Your task to perform on an android device: What's the weather today? Image 0: 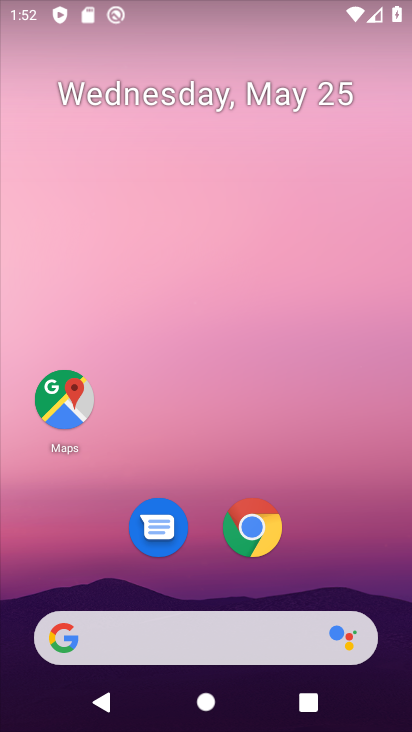
Step 0: click (195, 294)
Your task to perform on an android device: What's the weather today? Image 1: 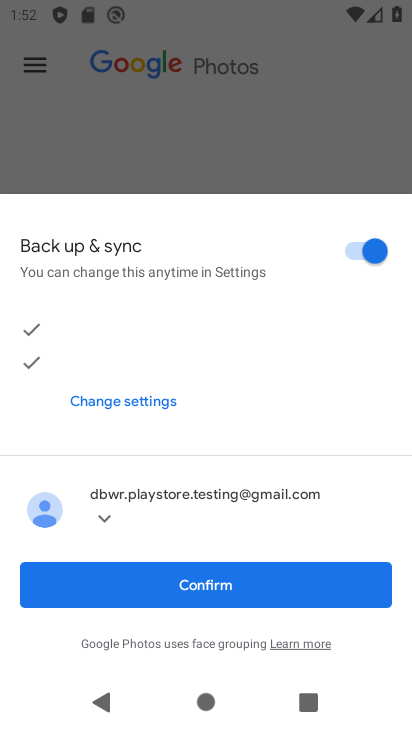
Step 1: press home button
Your task to perform on an android device: What's the weather today? Image 2: 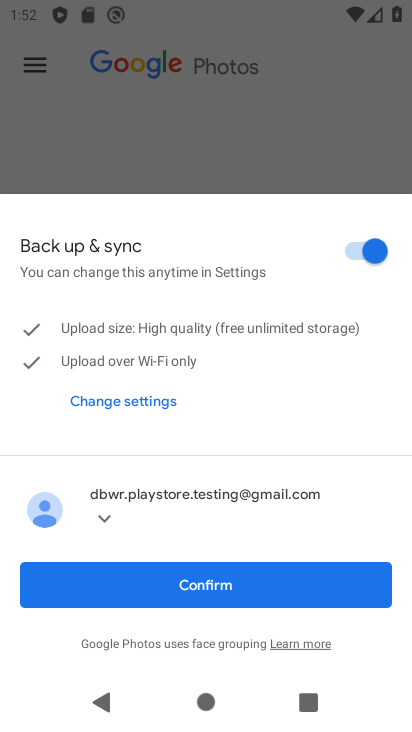
Step 2: drag from (250, 551) to (330, 13)
Your task to perform on an android device: What's the weather today? Image 3: 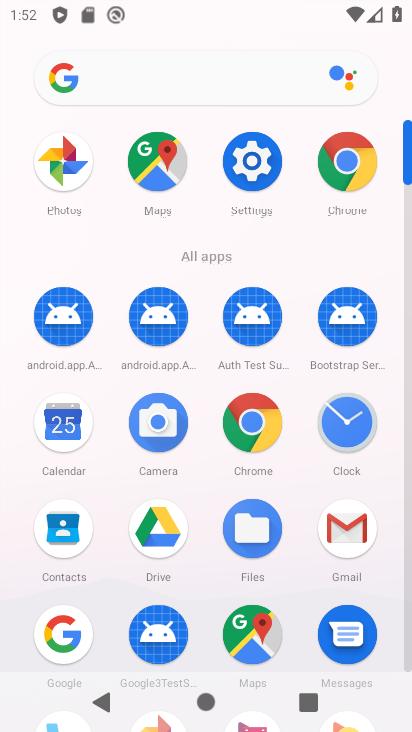
Step 3: click (166, 81)
Your task to perform on an android device: What's the weather today? Image 4: 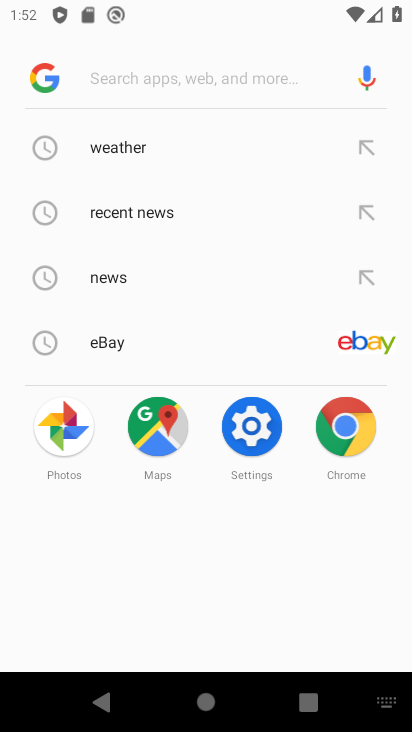
Step 4: click (154, 148)
Your task to perform on an android device: What's the weather today? Image 5: 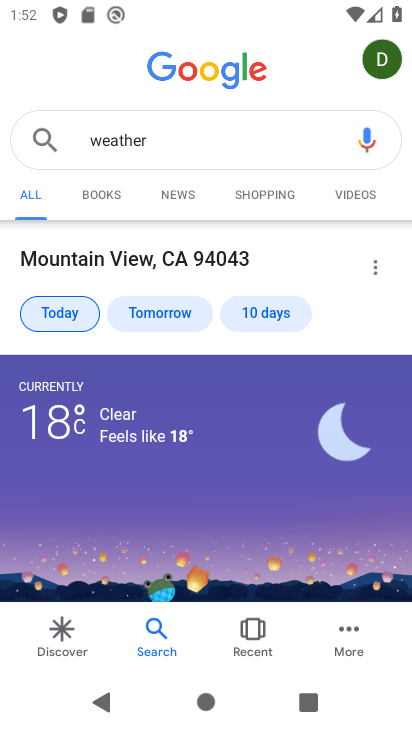
Step 5: task complete